Your task to perform on an android device: Open Google Chrome Image 0: 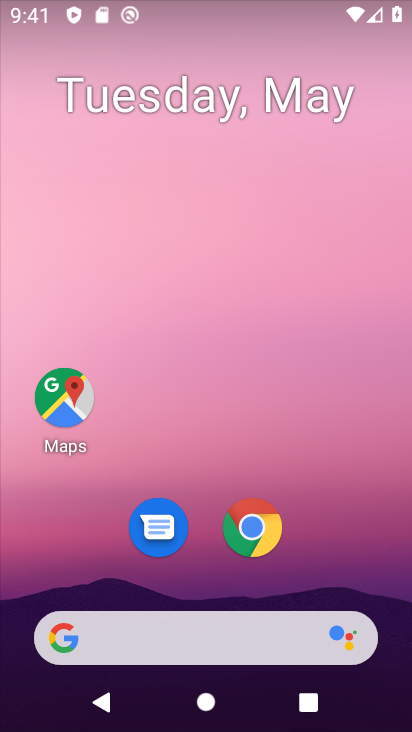
Step 0: click (252, 526)
Your task to perform on an android device: Open Google Chrome Image 1: 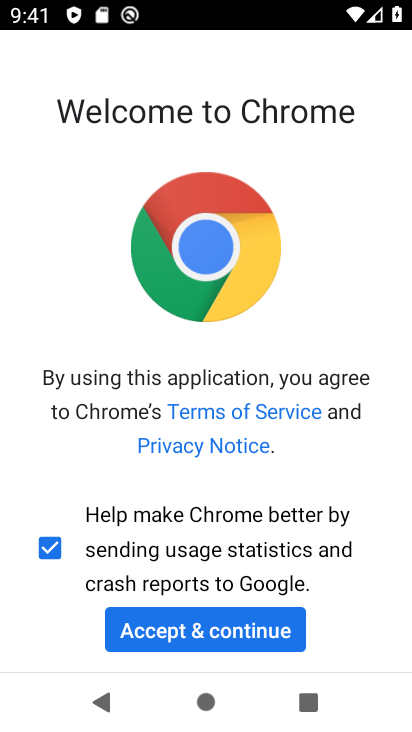
Step 1: click (229, 620)
Your task to perform on an android device: Open Google Chrome Image 2: 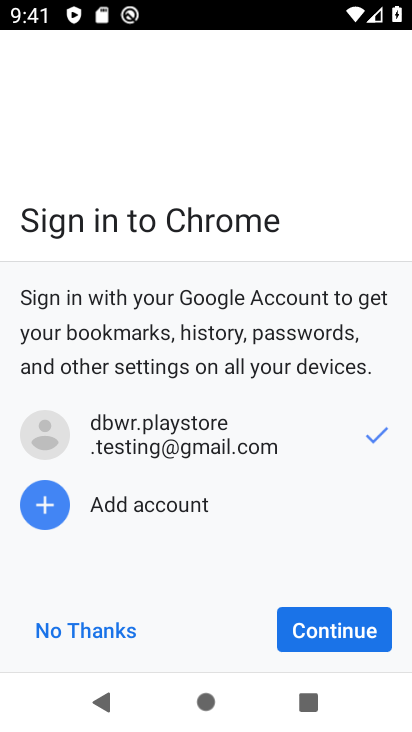
Step 2: click (319, 633)
Your task to perform on an android device: Open Google Chrome Image 3: 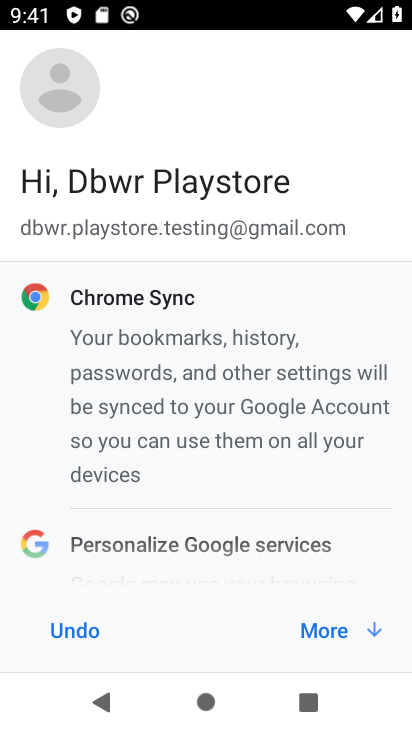
Step 3: click (323, 632)
Your task to perform on an android device: Open Google Chrome Image 4: 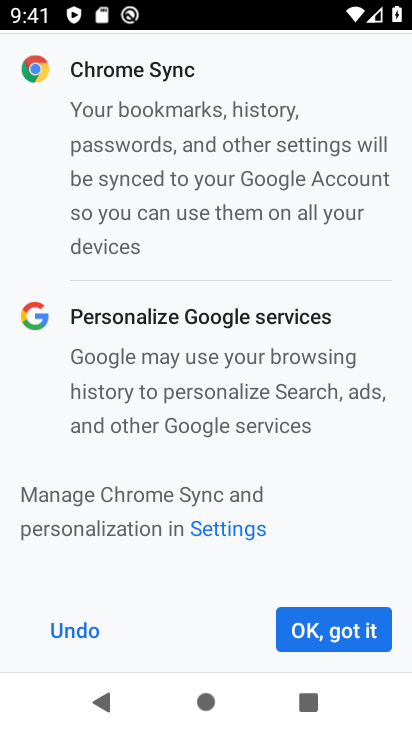
Step 4: click (332, 627)
Your task to perform on an android device: Open Google Chrome Image 5: 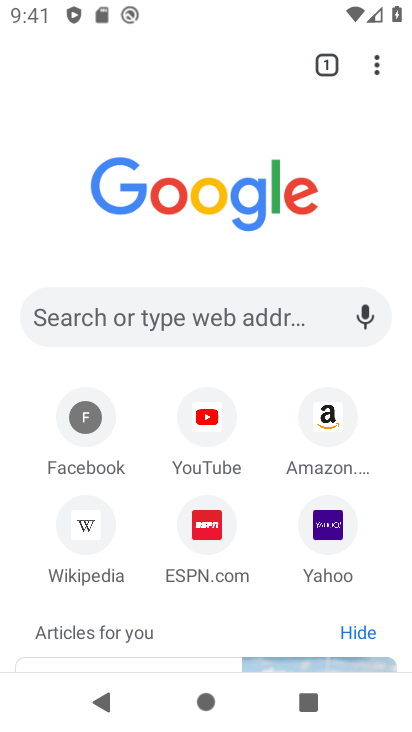
Step 5: task complete